Your task to perform on an android device: Search for Italian restaurants on Maps Image 0: 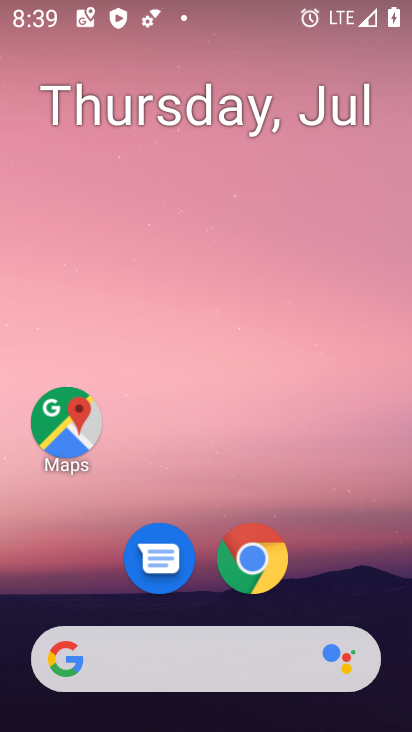
Step 0: drag from (197, 635) to (268, 178)
Your task to perform on an android device: Search for Italian restaurants on Maps Image 1: 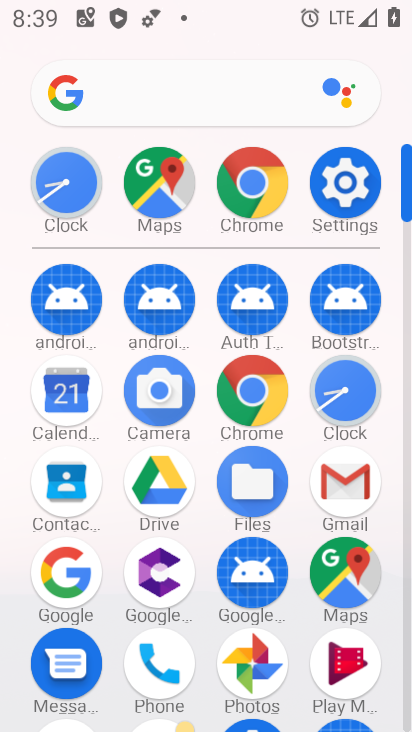
Step 1: click (336, 589)
Your task to perform on an android device: Search for Italian restaurants on Maps Image 2: 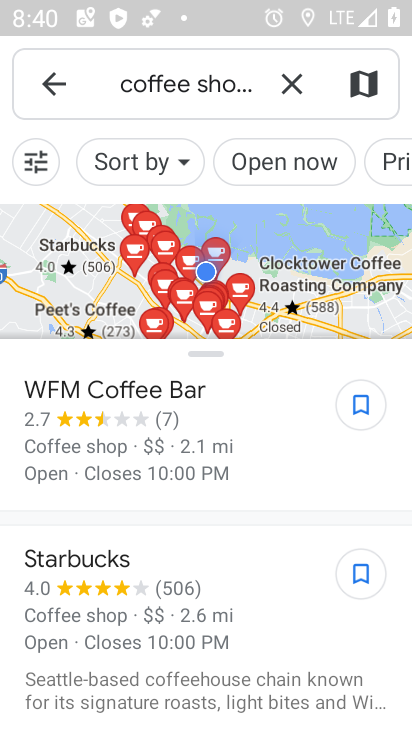
Step 2: click (293, 96)
Your task to perform on an android device: Search for Italian restaurants on Maps Image 3: 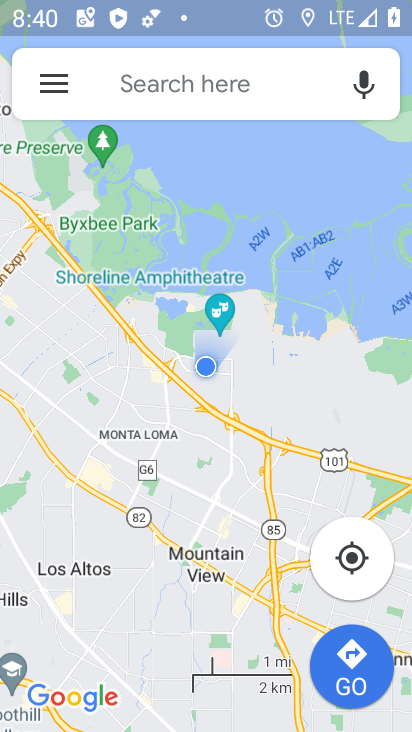
Step 3: click (271, 89)
Your task to perform on an android device: Search for Italian restaurants on Maps Image 4: 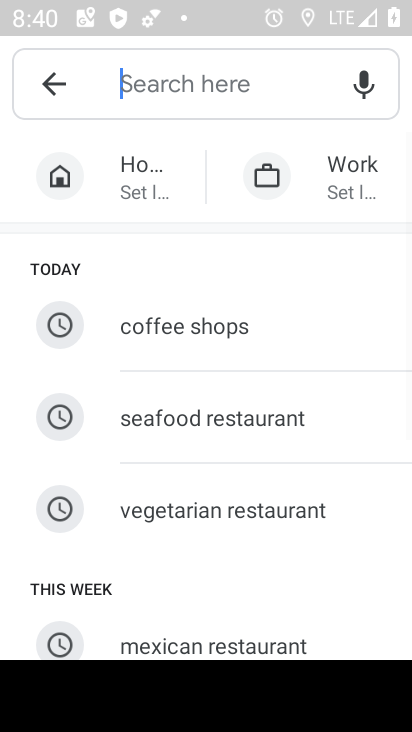
Step 4: drag from (203, 525) to (267, 200)
Your task to perform on an android device: Search for Italian restaurants on Maps Image 5: 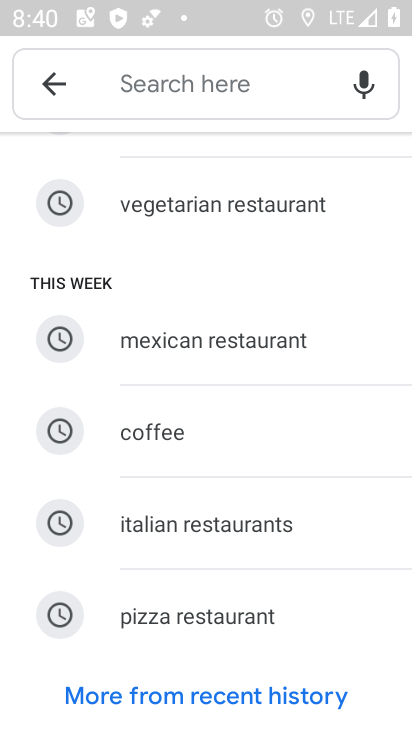
Step 5: click (210, 538)
Your task to perform on an android device: Search for Italian restaurants on Maps Image 6: 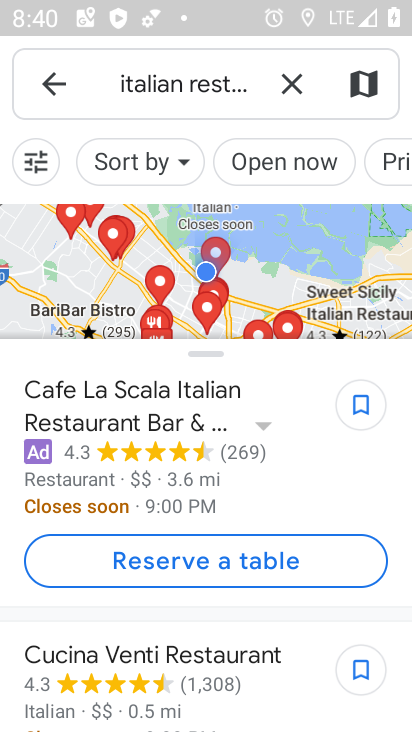
Step 6: task complete